Your task to perform on an android device: Add "bose soundlink mini" to the cart on bestbuy.com Image 0: 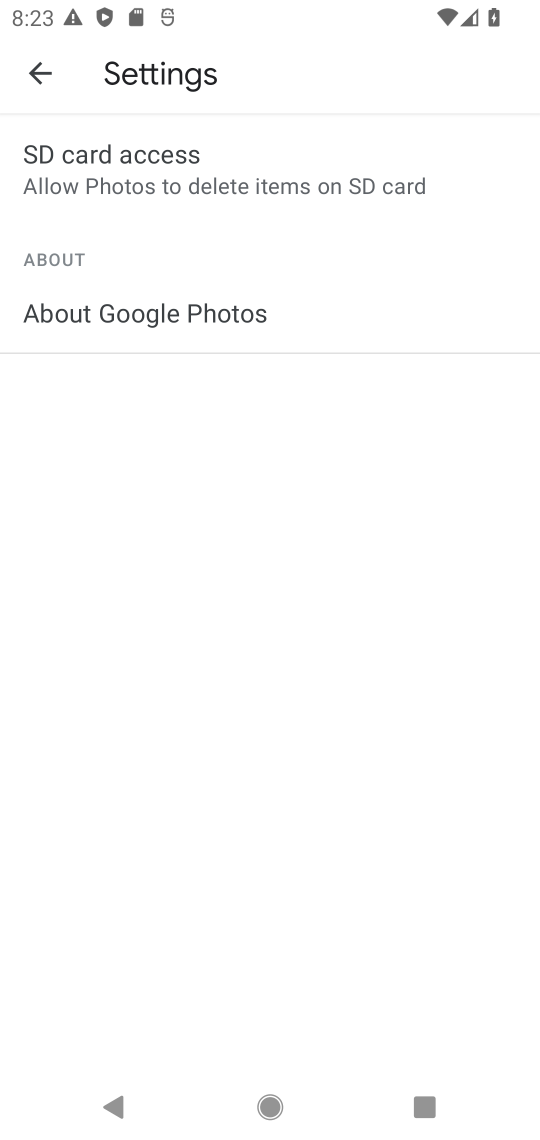
Step 0: press home button
Your task to perform on an android device: Add "bose soundlink mini" to the cart on bestbuy.com Image 1: 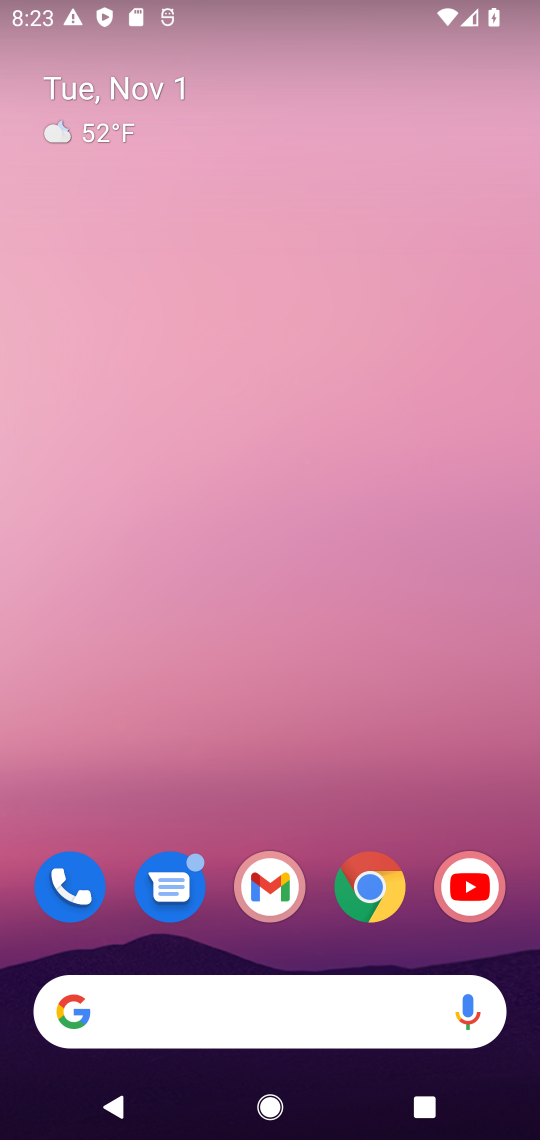
Step 1: drag from (253, 922) to (273, 161)
Your task to perform on an android device: Add "bose soundlink mini" to the cart on bestbuy.com Image 2: 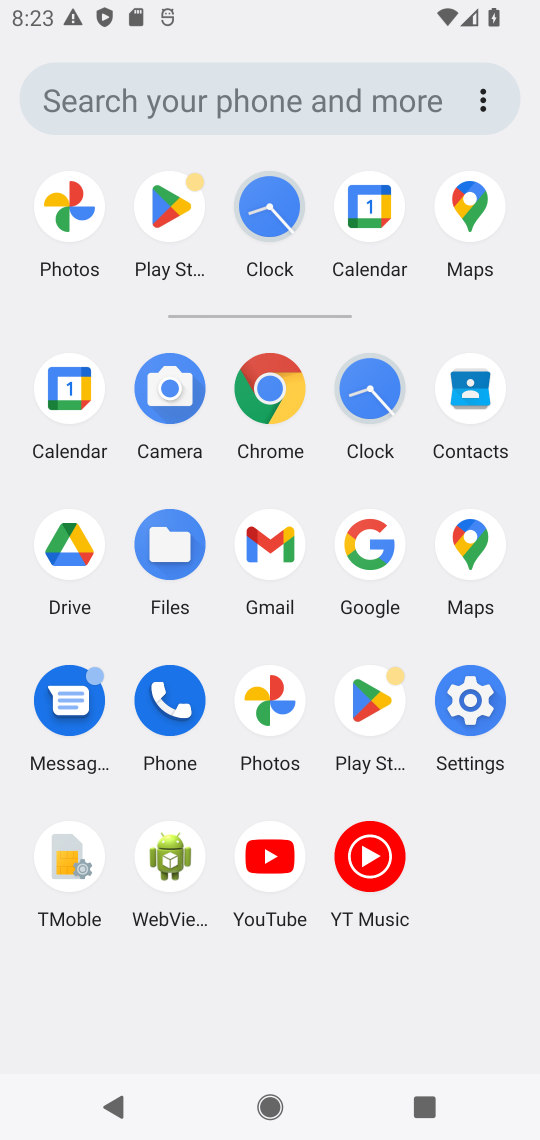
Step 2: click (361, 532)
Your task to perform on an android device: Add "bose soundlink mini" to the cart on bestbuy.com Image 3: 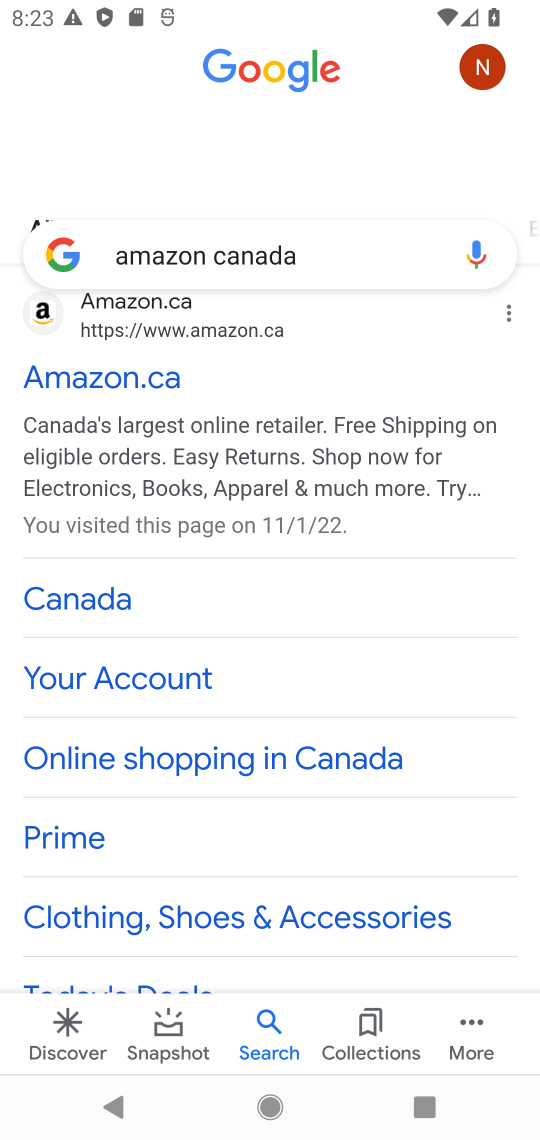
Step 3: click (262, 259)
Your task to perform on an android device: Add "bose soundlink mini" to the cart on bestbuy.com Image 4: 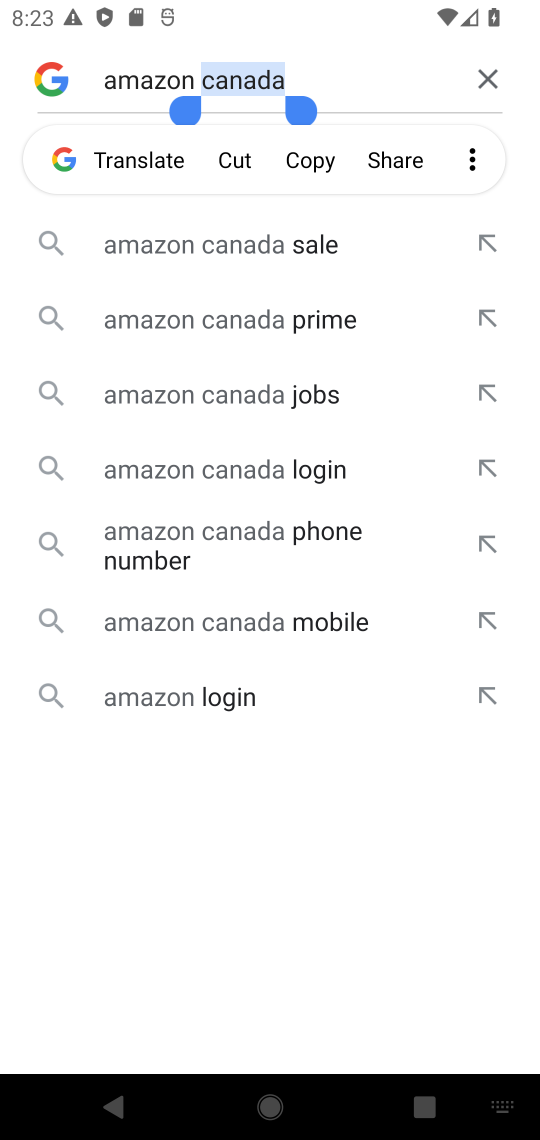
Step 4: click (467, 85)
Your task to perform on an android device: Add "bose soundlink mini" to the cart on bestbuy.com Image 5: 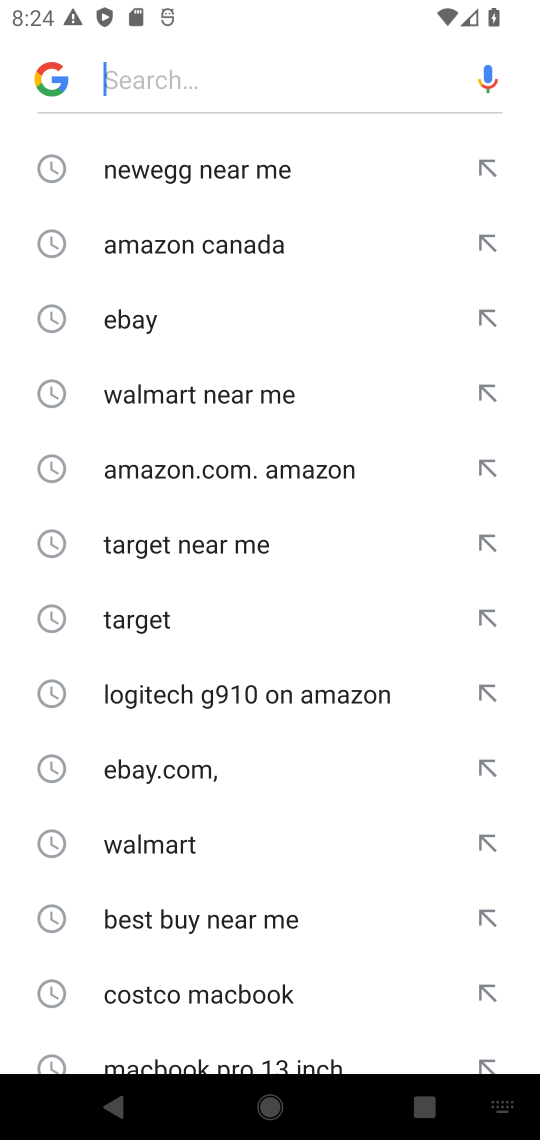
Step 5: click (230, 88)
Your task to perform on an android device: Add "bose soundlink mini" to the cart on bestbuy.com Image 6: 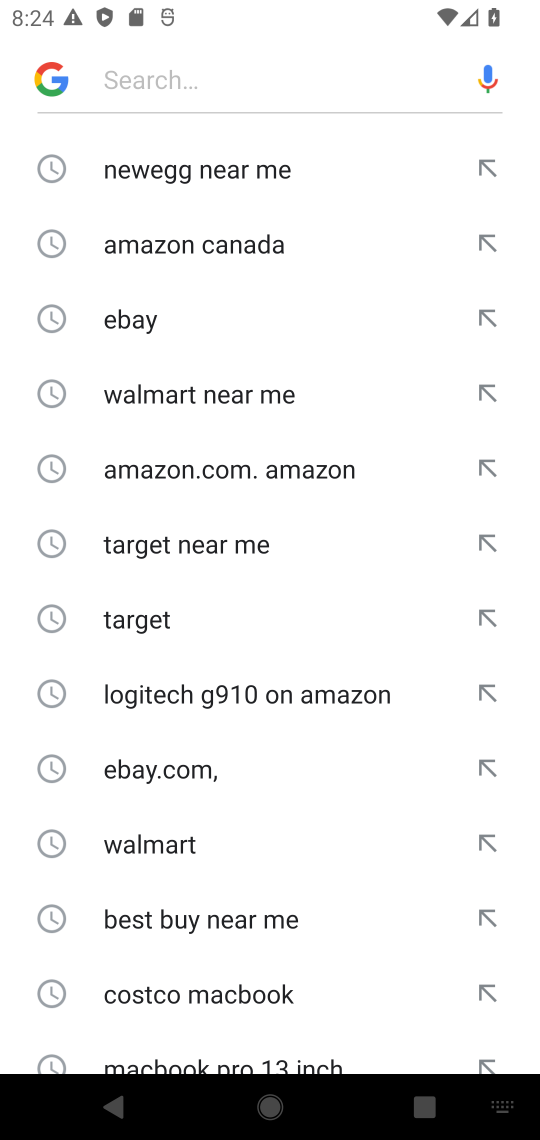
Step 6: type "bestbuy "
Your task to perform on an android device: Add "bose soundlink mini" to the cart on bestbuy.com Image 7: 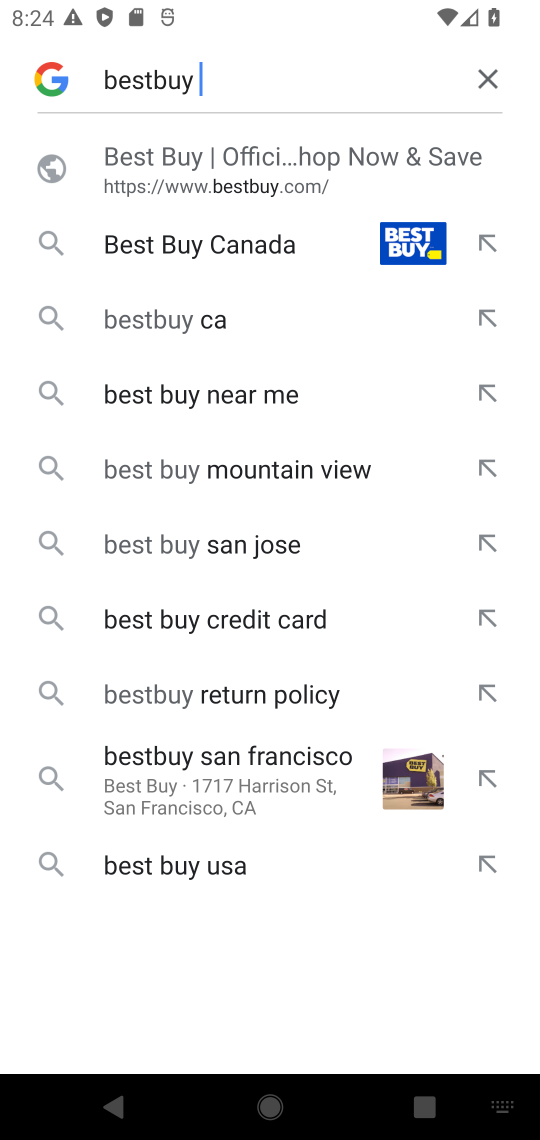
Step 7: click (157, 145)
Your task to perform on an android device: Add "bose soundlink mini" to the cart on bestbuy.com Image 8: 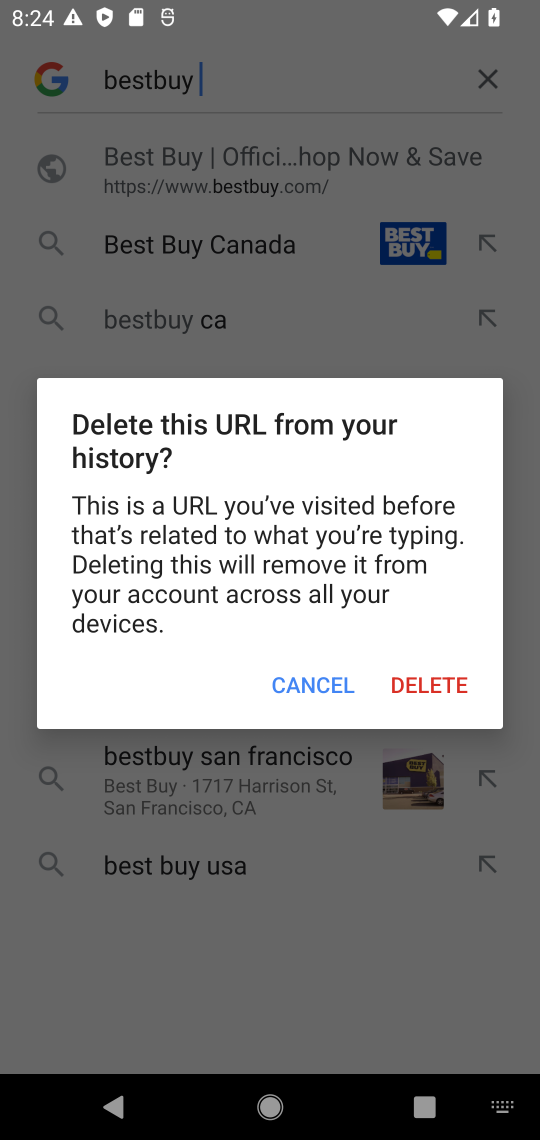
Step 8: click (302, 680)
Your task to perform on an android device: Add "bose soundlink mini" to the cart on bestbuy.com Image 9: 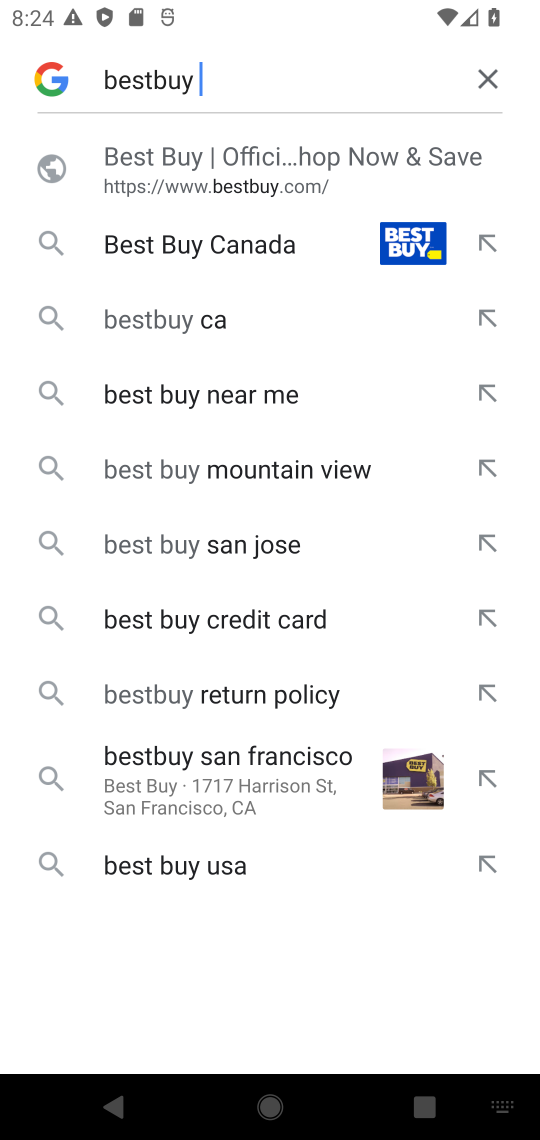
Step 9: click (181, 269)
Your task to perform on an android device: Add "bose soundlink mini" to the cart on bestbuy.com Image 10: 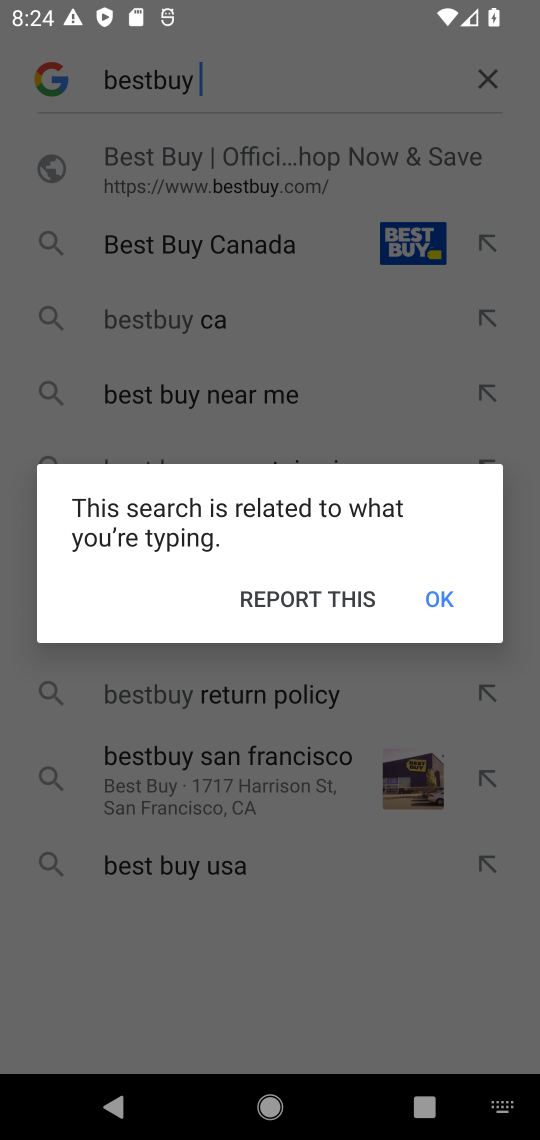
Step 10: click (462, 616)
Your task to perform on an android device: Add "bose soundlink mini" to the cart on bestbuy.com Image 11: 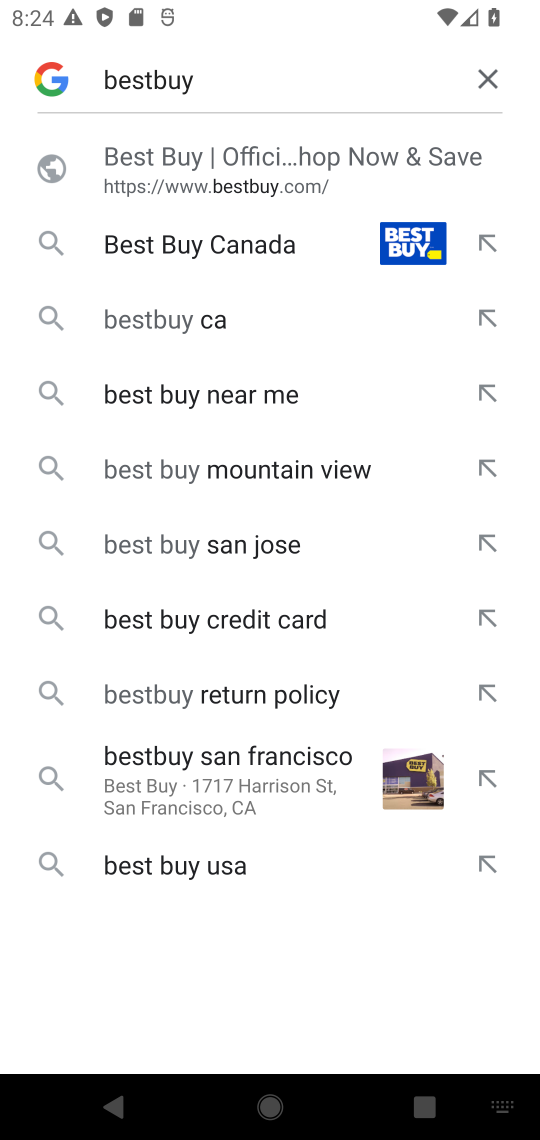
Step 11: click (198, 393)
Your task to perform on an android device: Add "bose soundlink mini" to the cart on bestbuy.com Image 12: 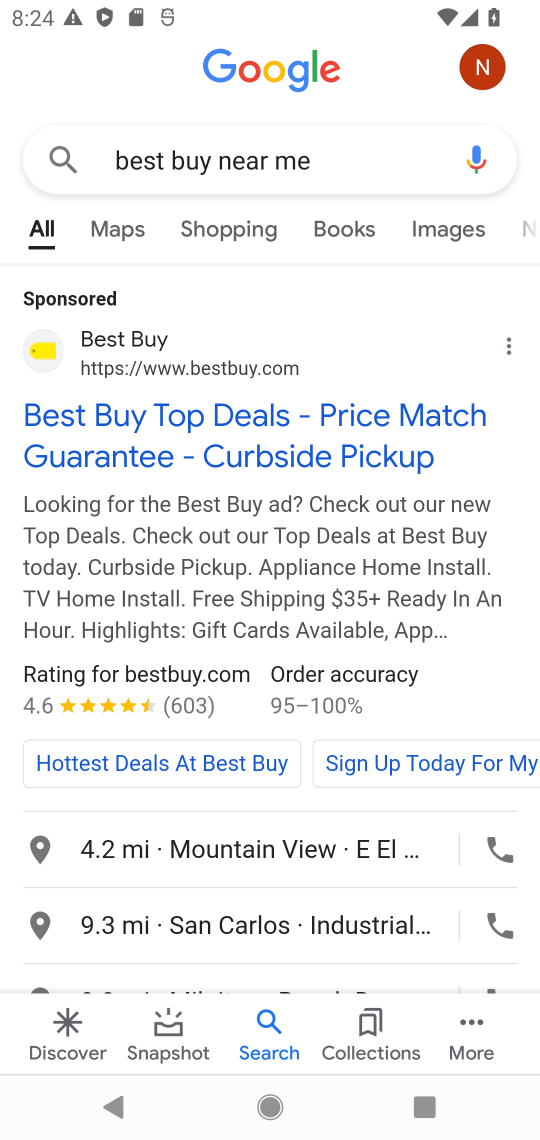
Step 12: click (34, 348)
Your task to perform on an android device: Add "bose soundlink mini" to the cart on bestbuy.com Image 13: 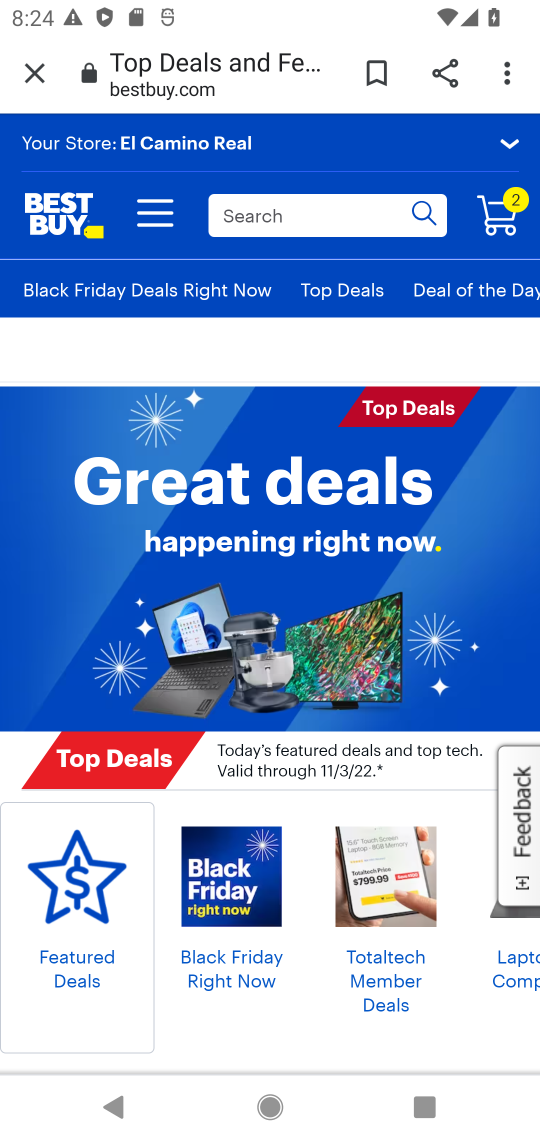
Step 13: click (332, 218)
Your task to perform on an android device: Add "bose soundlink mini" to the cart on bestbuy.com Image 14: 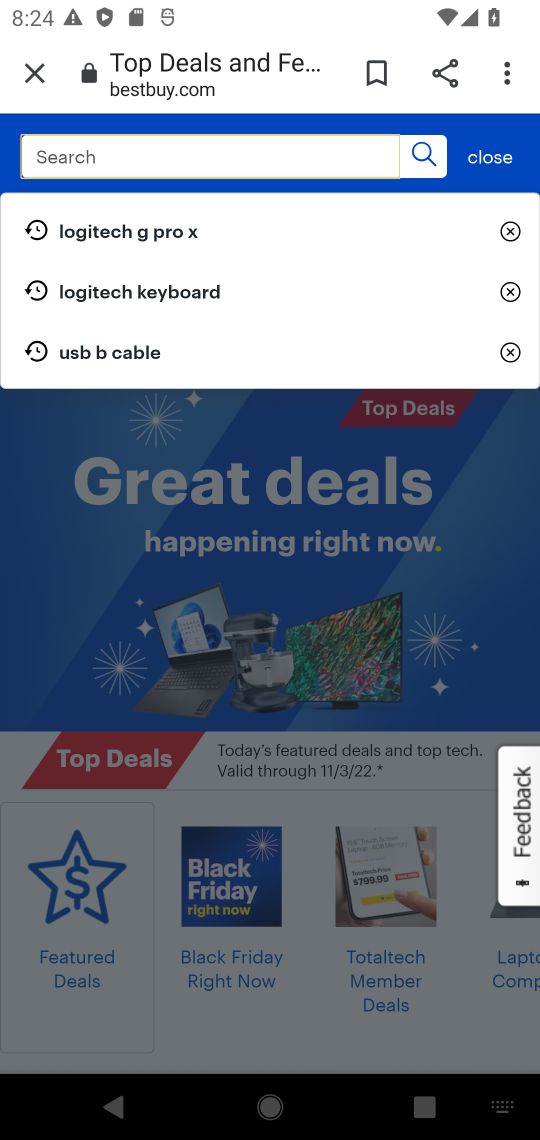
Step 14: click (209, 156)
Your task to perform on an android device: Add "bose soundlink mini" to the cart on bestbuy.com Image 15: 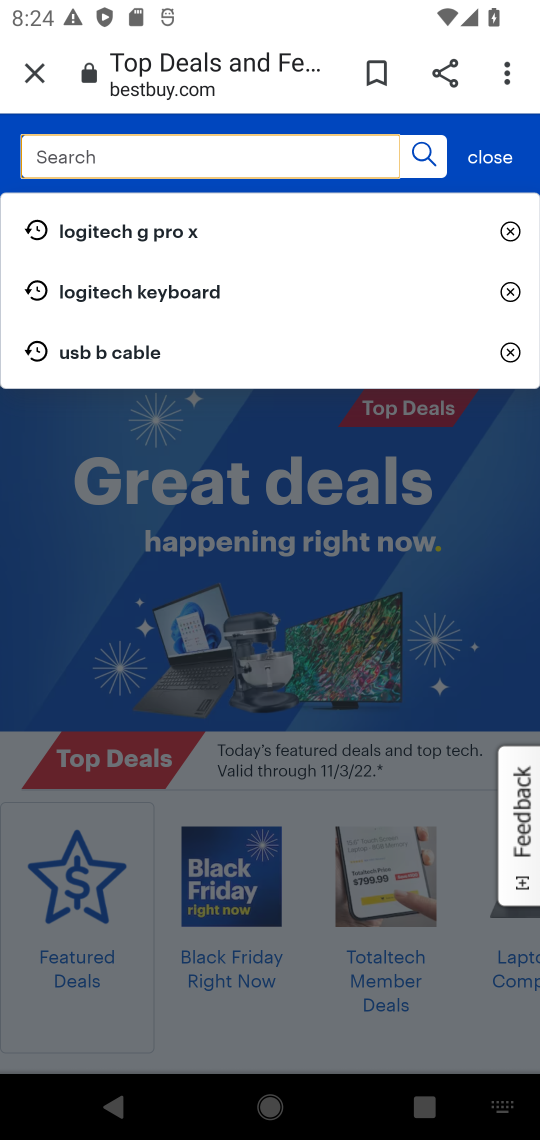
Step 15: type "bose soundlink  "
Your task to perform on an android device: Add "bose soundlink mini" to the cart on bestbuy.com Image 16: 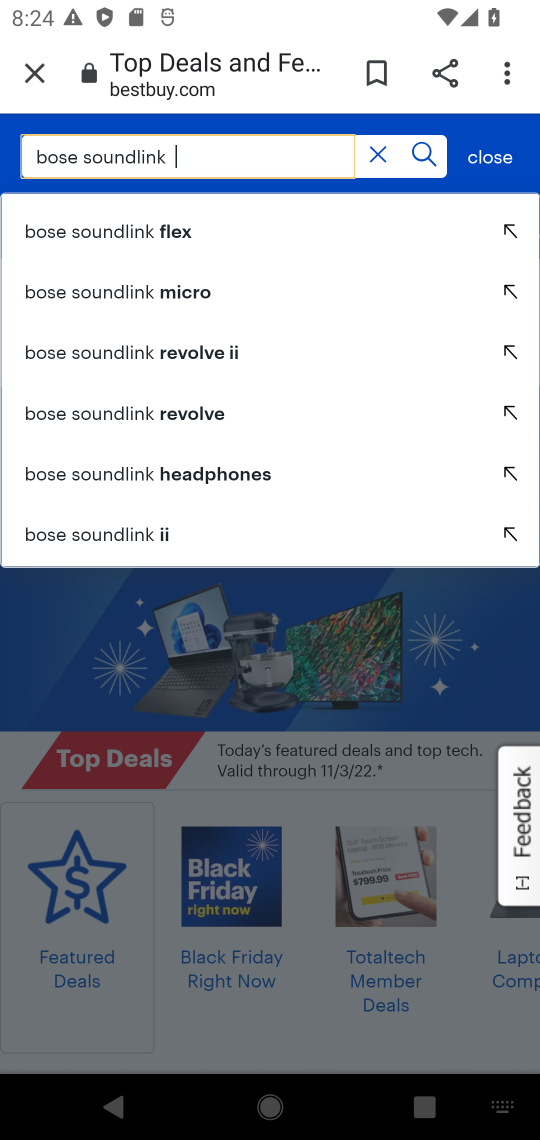
Step 16: click (122, 232)
Your task to perform on an android device: Add "bose soundlink mini" to the cart on bestbuy.com Image 17: 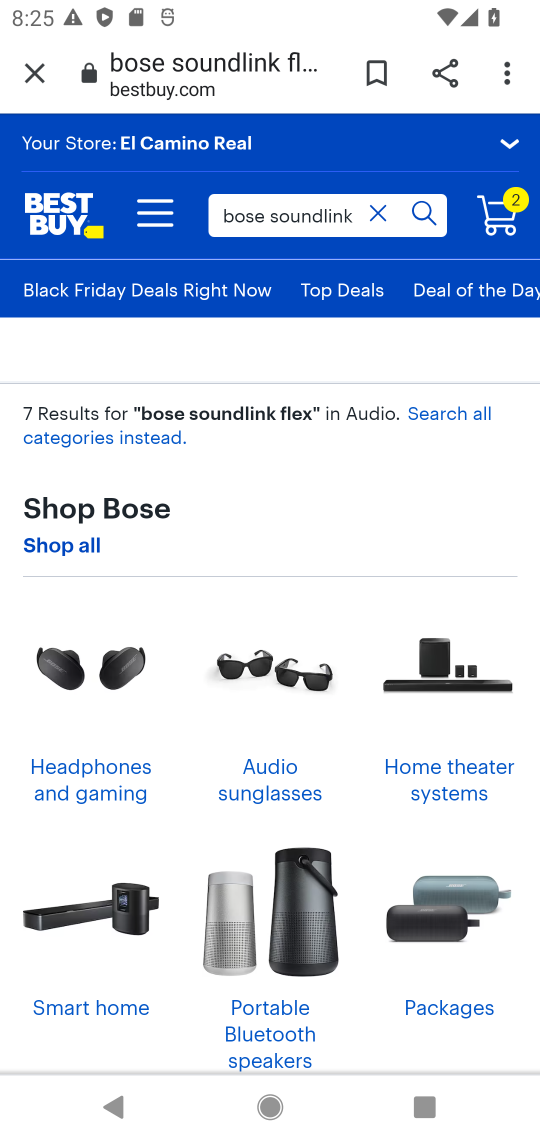
Step 17: drag from (288, 957) to (358, 328)
Your task to perform on an android device: Add "bose soundlink mini" to the cart on bestbuy.com Image 18: 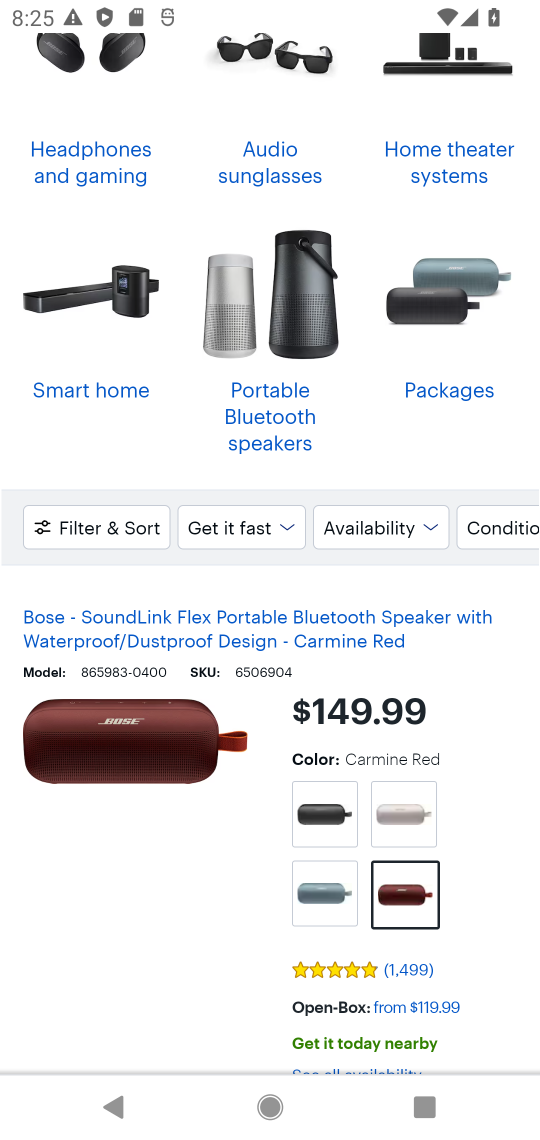
Step 18: drag from (339, 888) to (363, 521)
Your task to perform on an android device: Add "bose soundlink mini" to the cart on bestbuy.com Image 19: 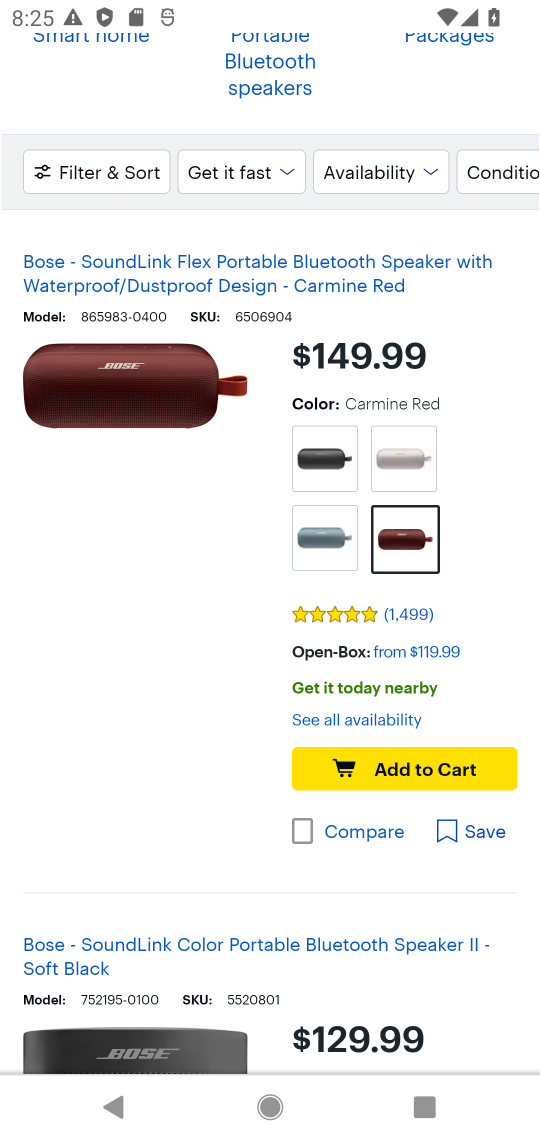
Step 19: click (411, 752)
Your task to perform on an android device: Add "bose soundlink mini" to the cart on bestbuy.com Image 20: 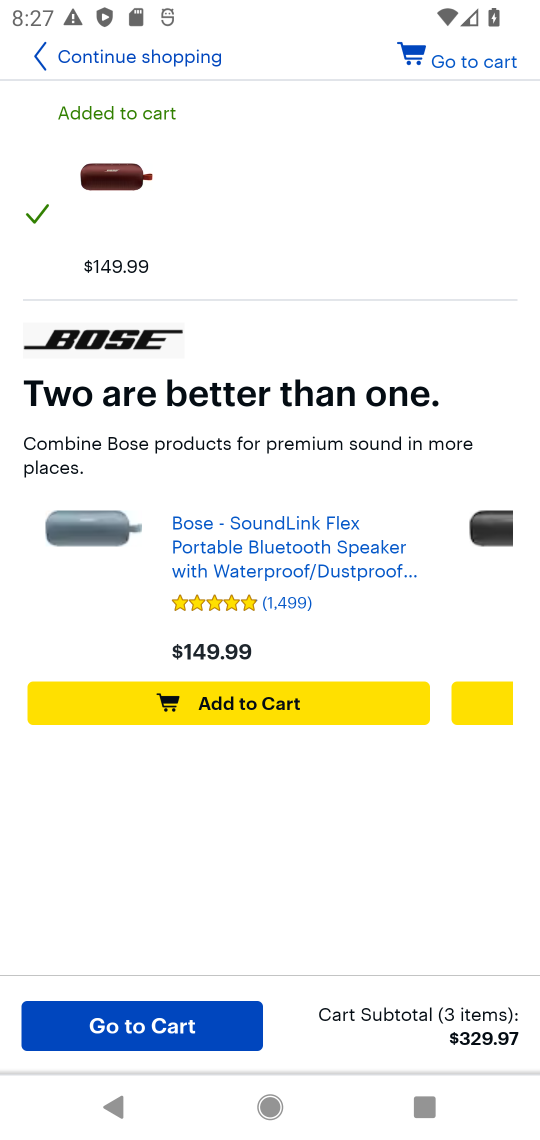
Step 20: task complete